Your task to perform on an android device: What is the speed of a cheetah? Image 0: 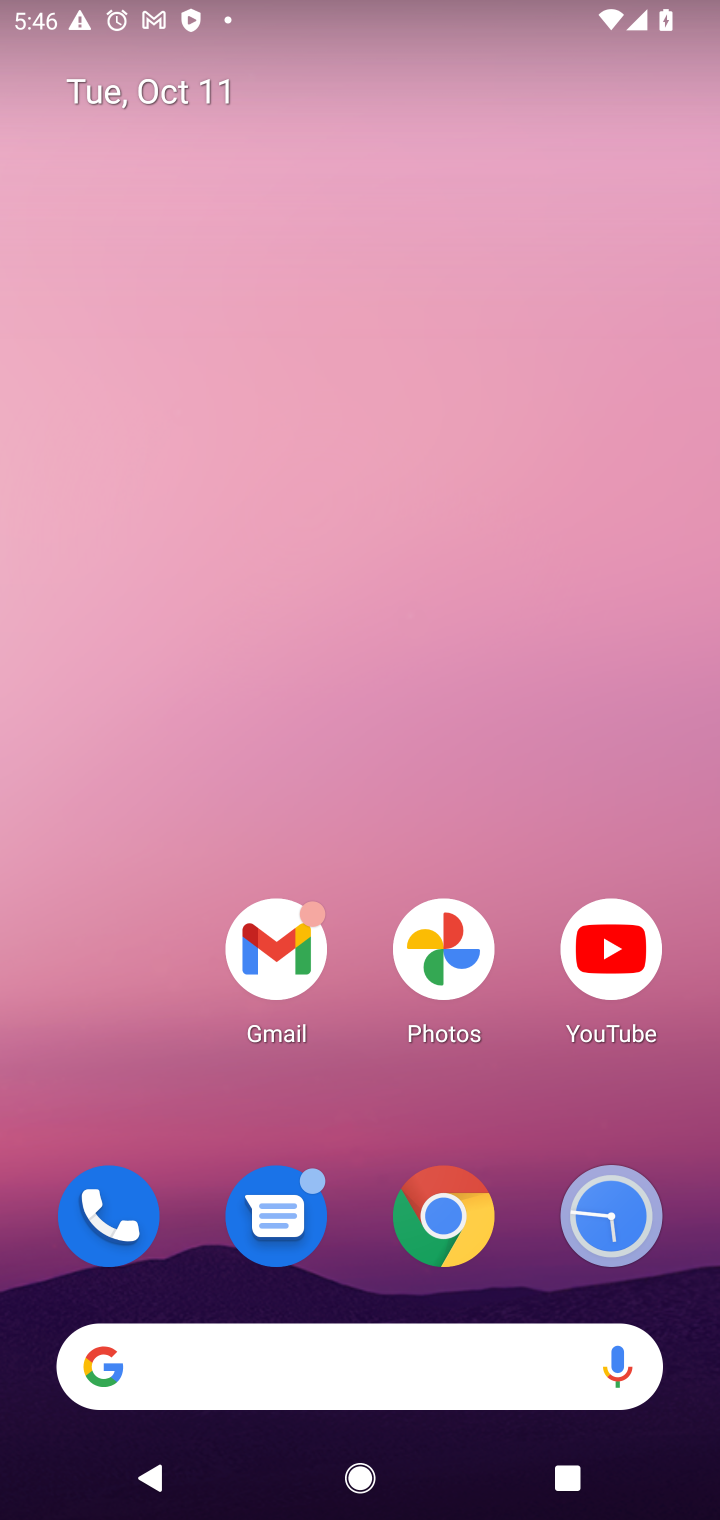
Step 0: click (432, 1237)
Your task to perform on an android device: What is the speed of a cheetah? Image 1: 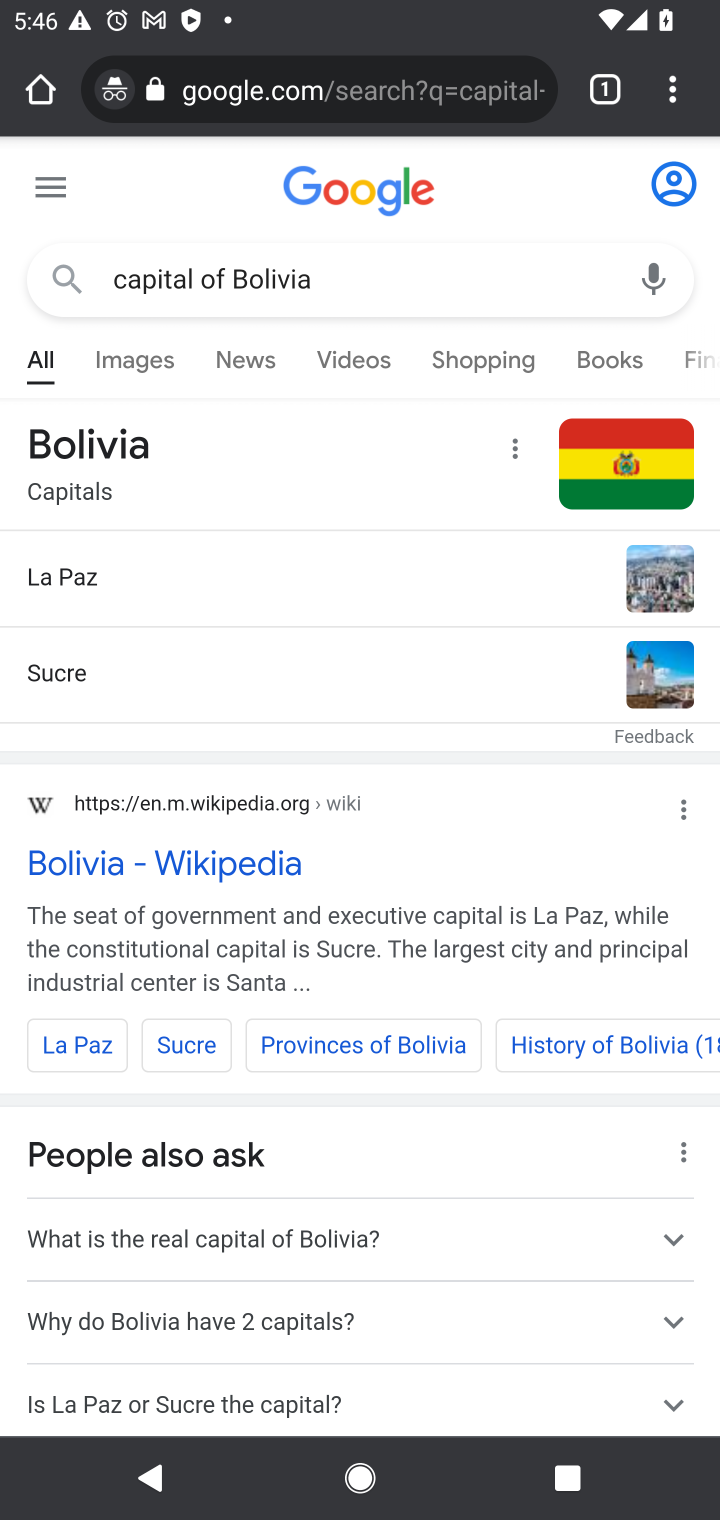
Step 1: click (457, 260)
Your task to perform on an android device: What is the speed of a cheetah? Image 2: 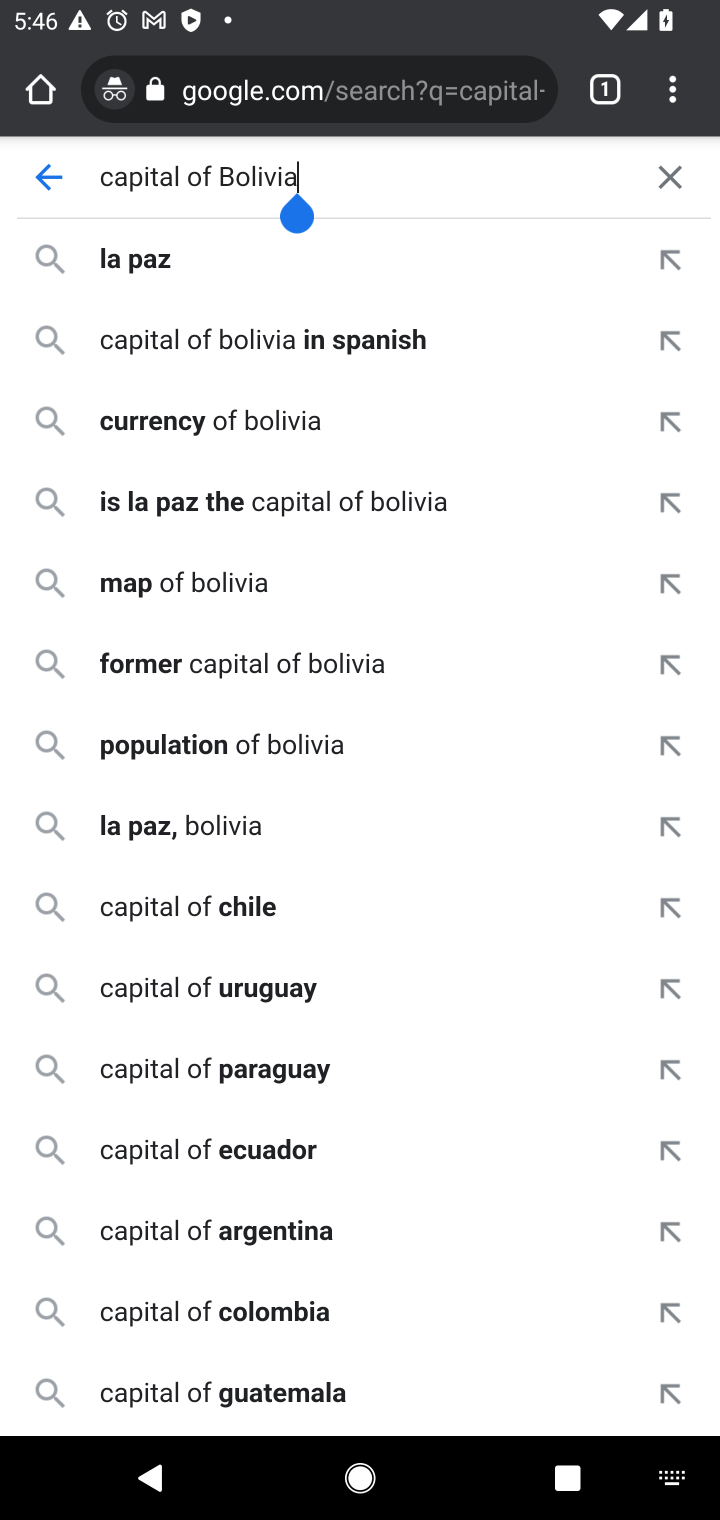
Step 2: click (660, 187)
Your task to perform on an android device: What is the speed of a cheetah? Image 3: 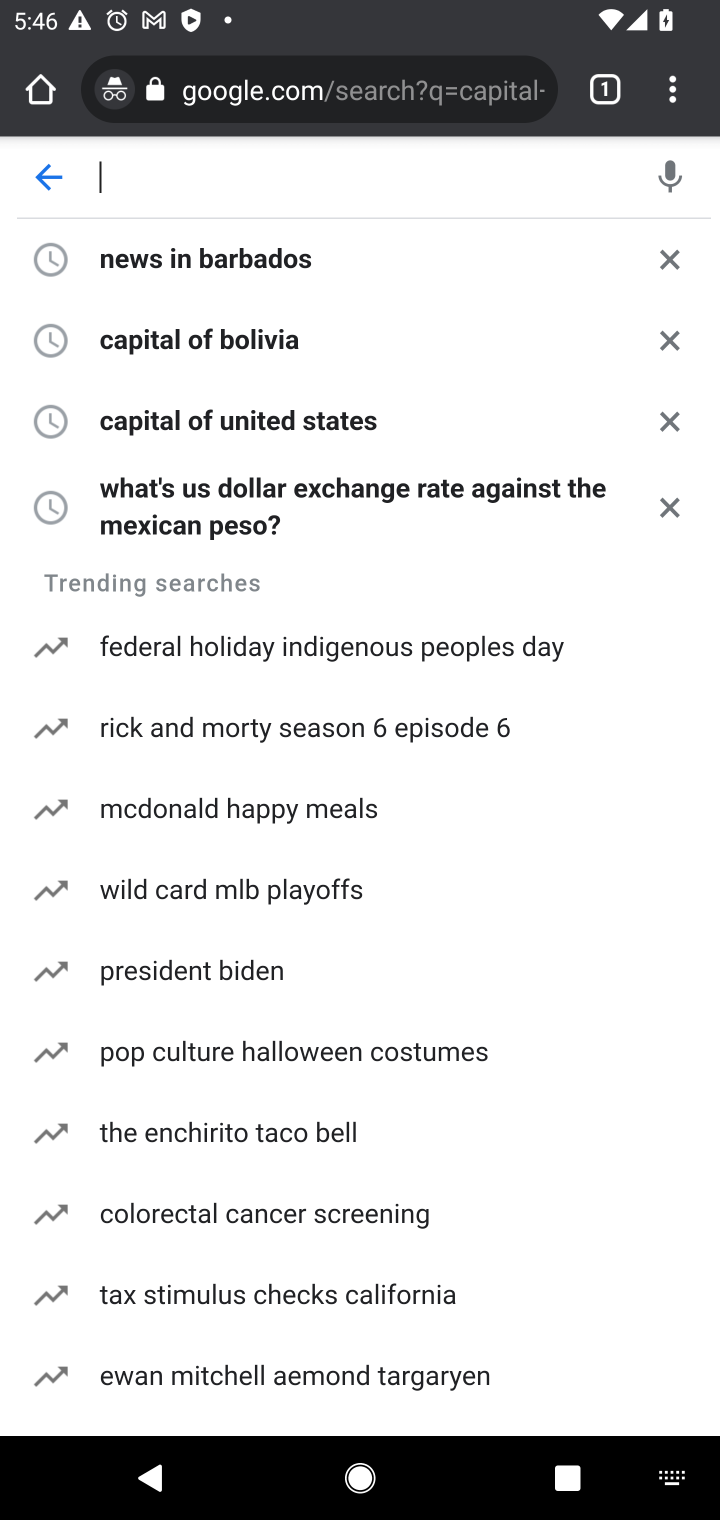
Step 3: type "What is the speed of a cheetah?"
Your task to perform on an android device: What is the speed of a cheetah? Image 4: 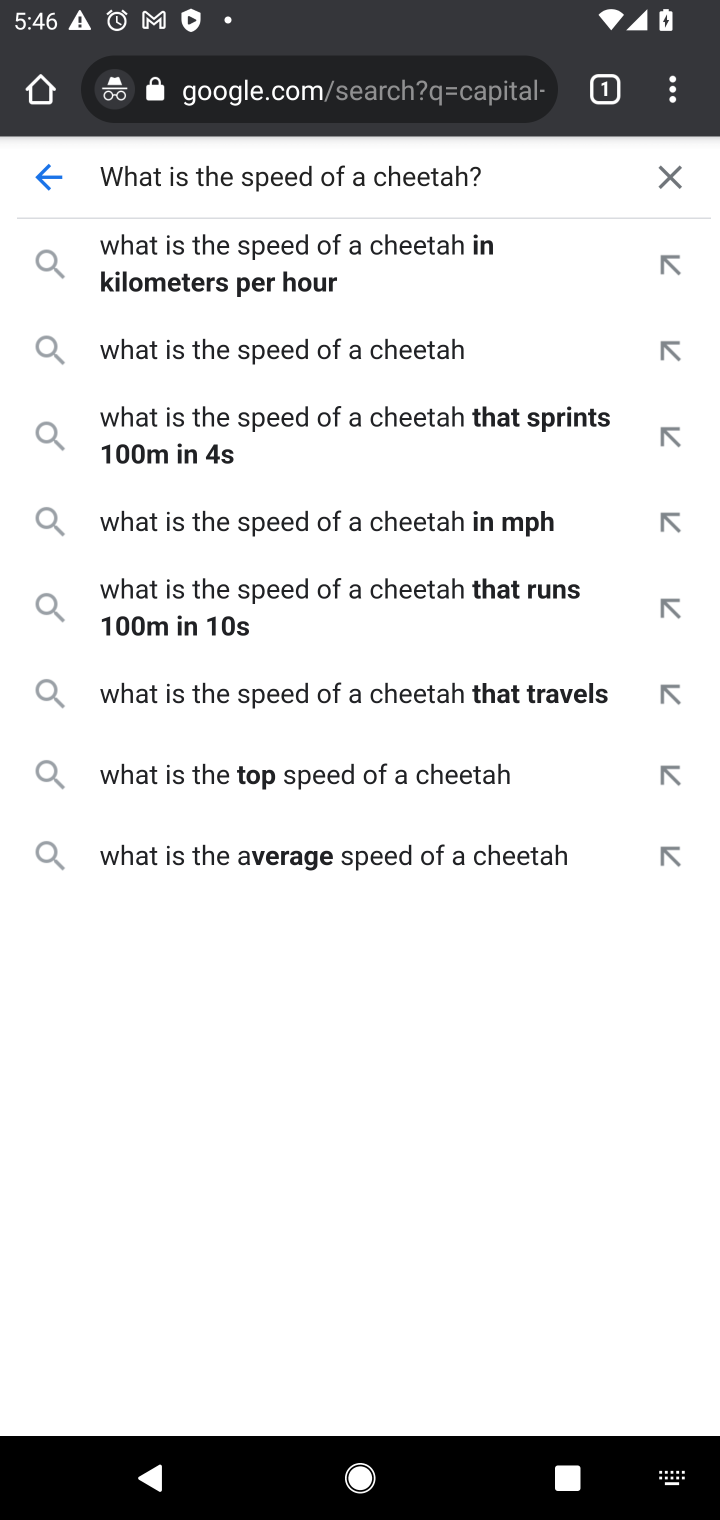
Step 4: press enter
Your task to perform on an android device: What is the speed of a cheetah? Image 5: 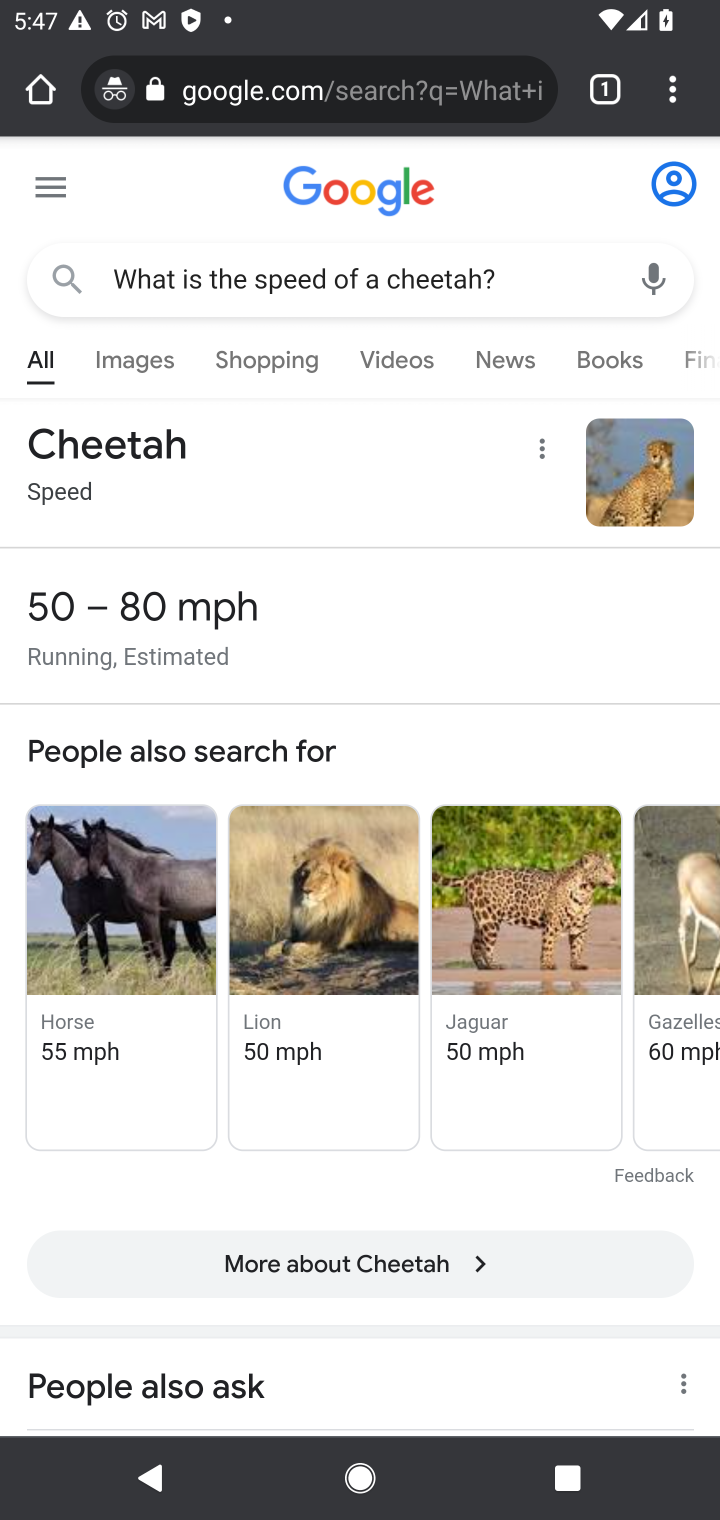
Step 5: task complete